Your task to perform on an android device: turn on airplane mode Image 0: 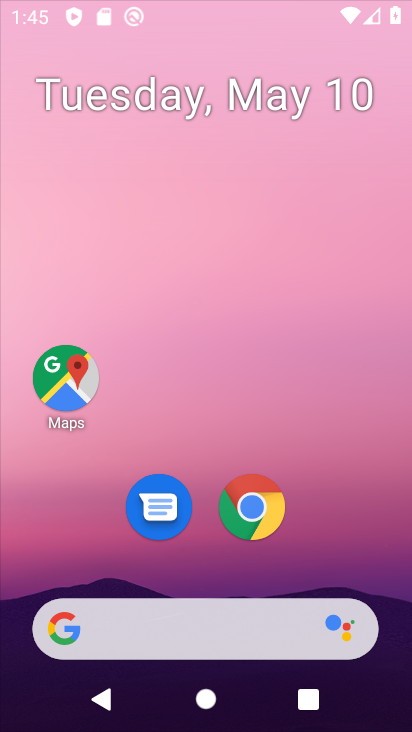
Step 0: drag from (336, 569) to (165, 228)
Your task to perform on an android device: turn on airplane mode Image 1: 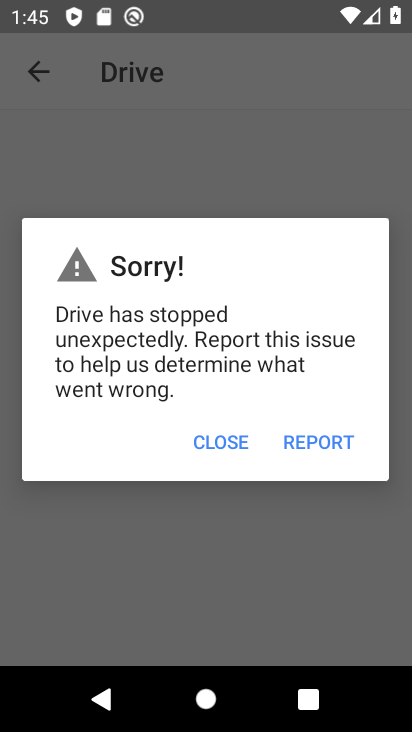
Step 1: press home button
Your task to perform on an android device: turn on airplane mode Image 2: 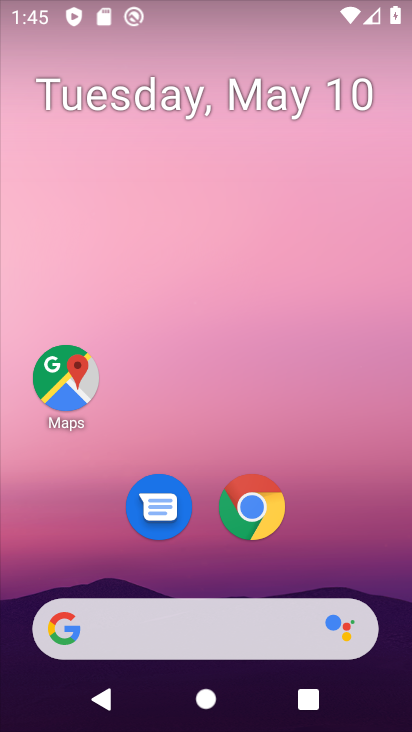
Step 2: drag from (214, 364) to (186, 61)
Your task to perform on an android device: turn on airplane mode Image 3: 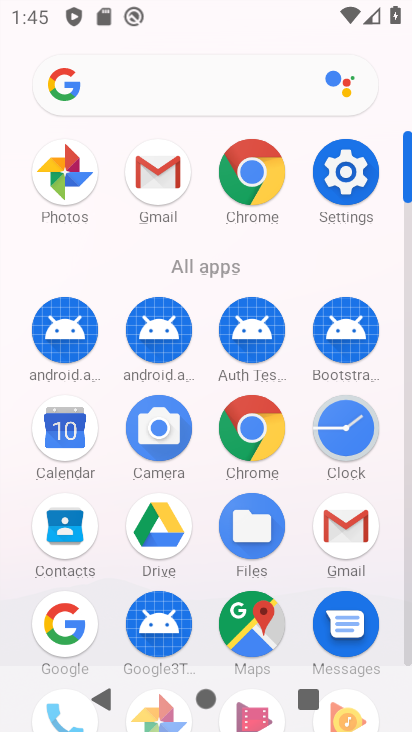
Step 3: click (342, 169)
Your task to perform on an android device: turn on airplane mode Image 4: 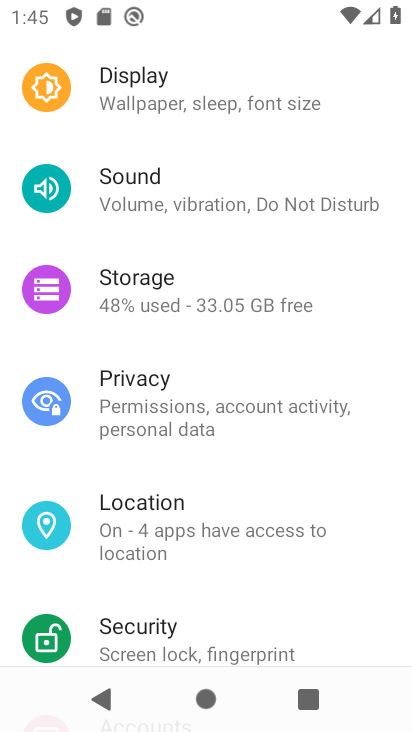
Step 4: drag from (219, 147) to (199, 526)
Your task to perform on an android device: turn on airplane mode Image 5: 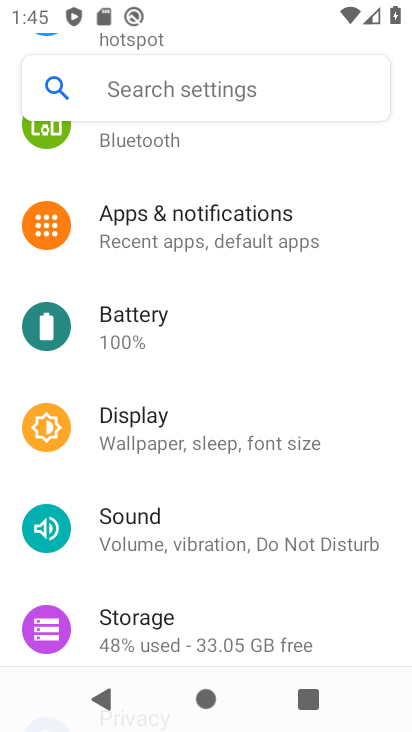
Step 5: drag from (177, 196) to (168, 465)
Your task to perform on an android device: turn on airplane mode Image 6: 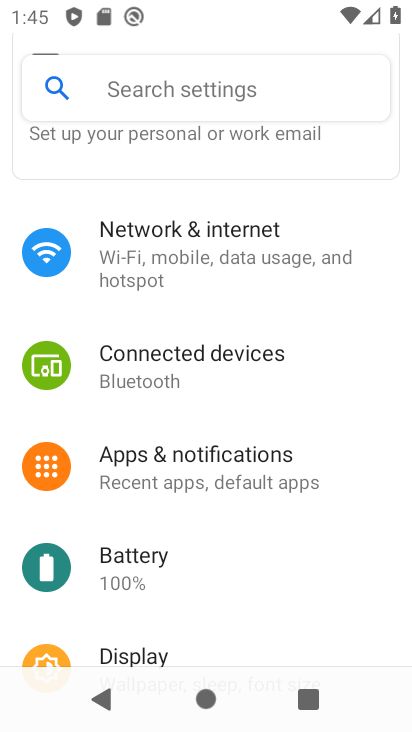
Step 6: click (156, 264)
Your task to perform on an android device: turn on airplane mode Image 7: 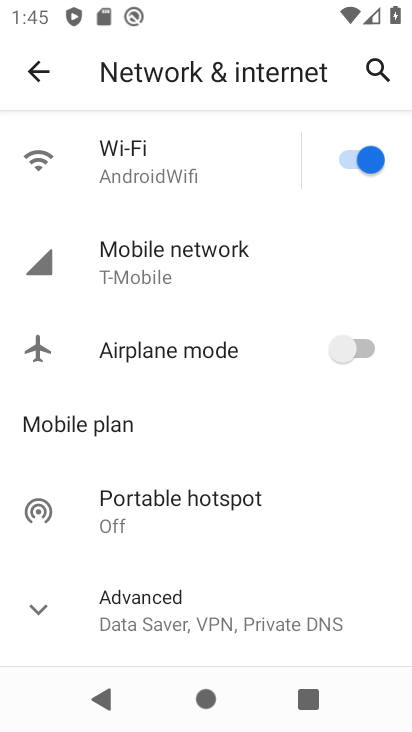
Step 7: click (354, 355)
Your task to perform on an android device: turn on airplane mode Image 8: 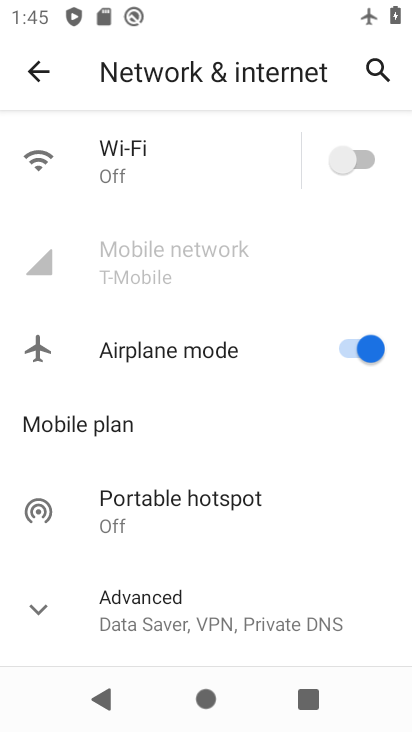
Step 8: task complete